Your task to perform on an android device: What's the weather? Image 0: 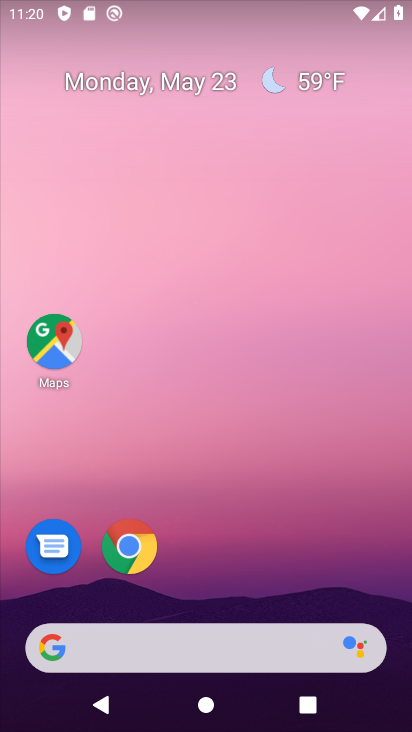
Step 0: drag from (209, 605) to (226, 88)
Your task to perform on an android device: What's the weather? Image 1: 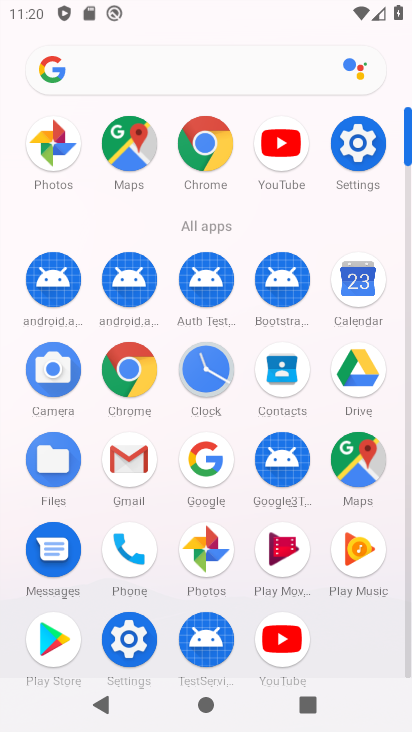
Step 1: click (171, 69)
Your task to perform on an android device: What's the weather? Image 2: 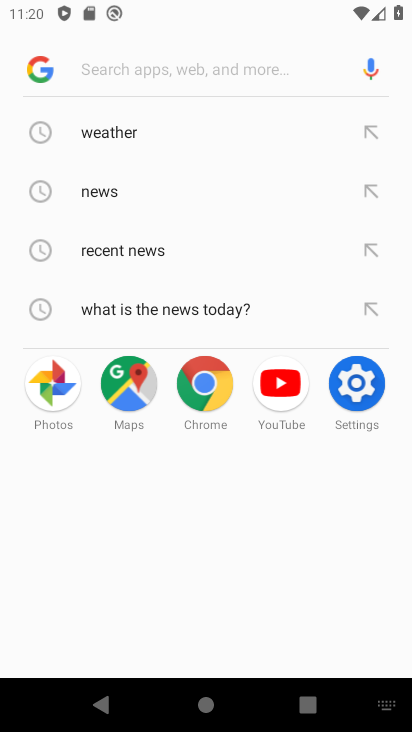
Step 2: click (119, 125)
Your task to perform on an android device: What's the weather? Image 3: 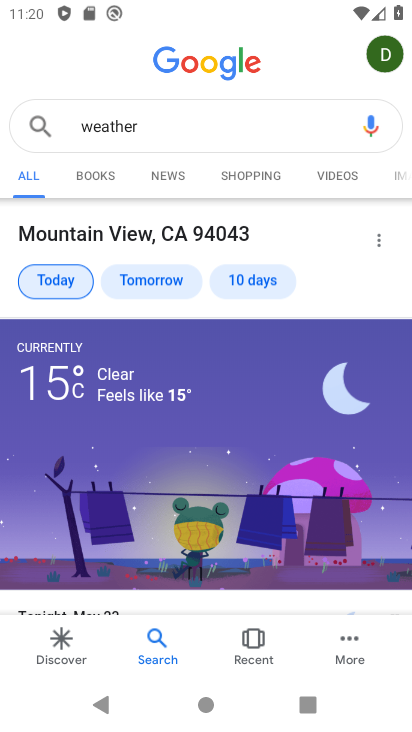
Step 3: task complete